Your task to perform on an android device: Open Android settings Image 0: 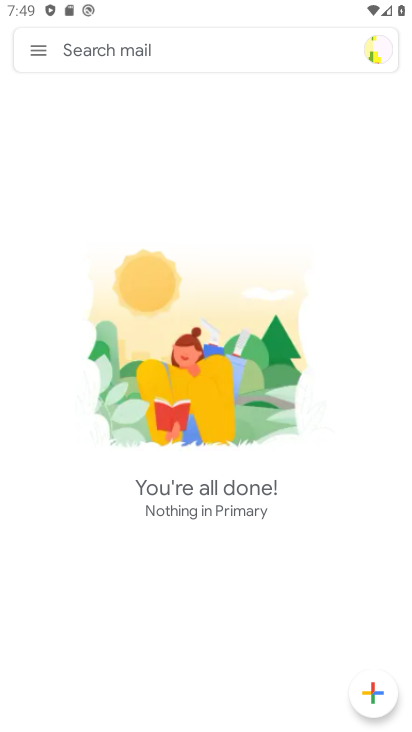
Step 0: press home button
Your task to perform on an android device: Open Android settings Image 1: 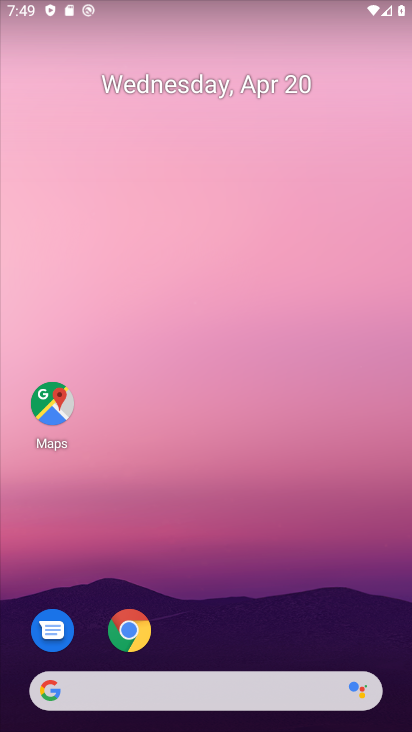
Step 1: drag from (208, 608) to (206, 106)
Your task to perform on an android device: Open Android settings Image 2: 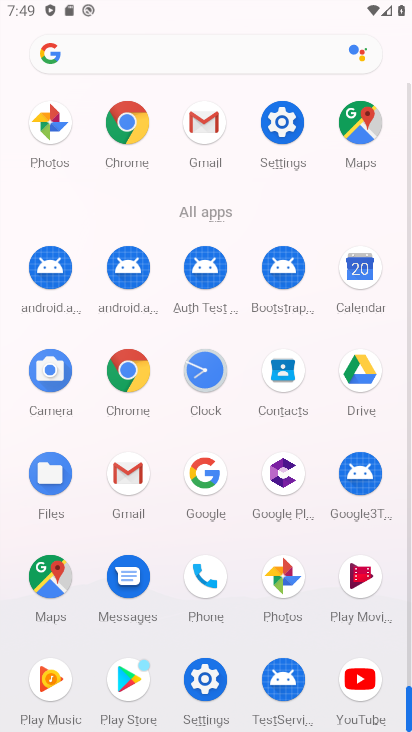
Step 2: click (286, 155)
Your task to perform on an android device: Open Android settings Image 3: 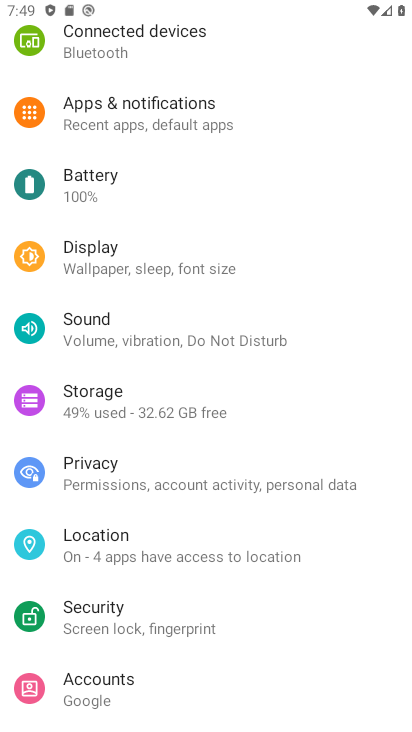
Step 3: drag from (188, 519) to (190, 156)
Your task to perform on an android device: Open Android settings Image 4: 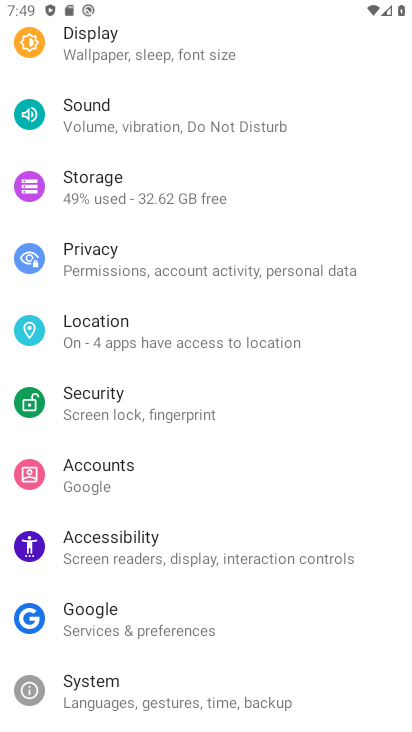
Step 4: drag from (179, 629) to (230, 112)
Your task to perform on an android device: Open Android settings Image 5: 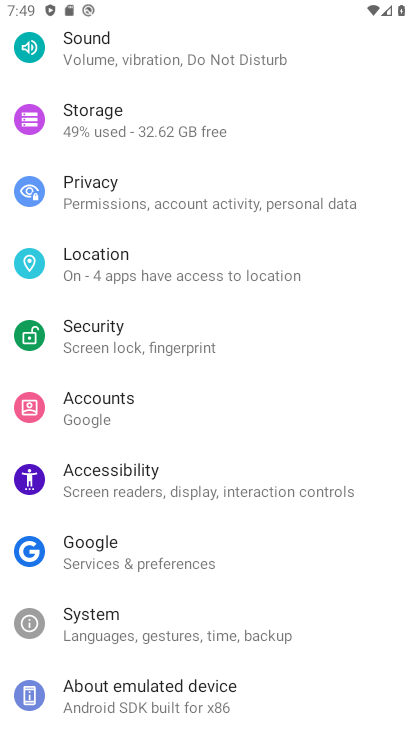
Step 5: click (241, 685)
Your task to perform on an android device: Open Android settings Image 6: 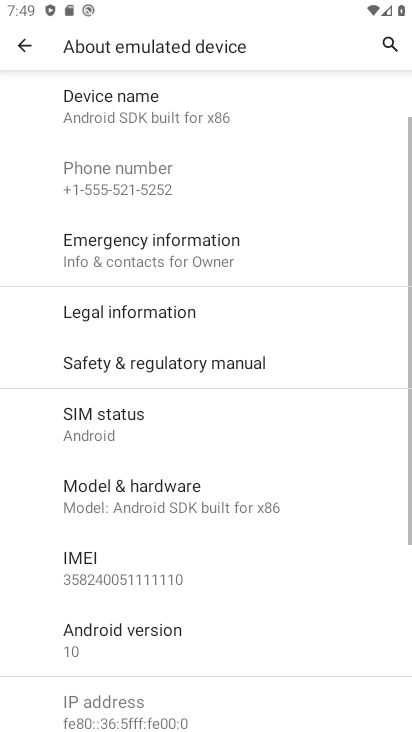
Step 6: click (200, 621)
Your task to perform on an android device: Open Android settings Image 7: 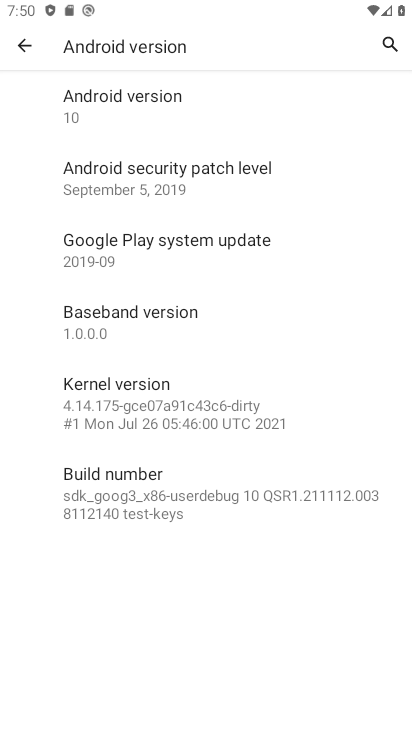
Step 7: click (192, 110)
Your task to perform on an android device: Open Android settings Image 8: 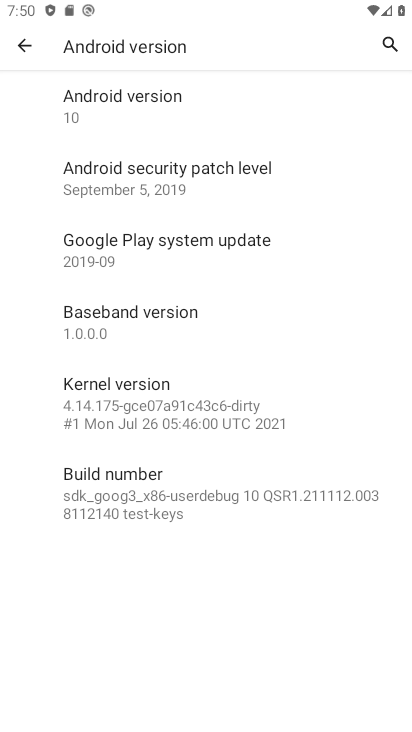
Step 8: task complete